Your task to perform on an android device: check android version Image 0: 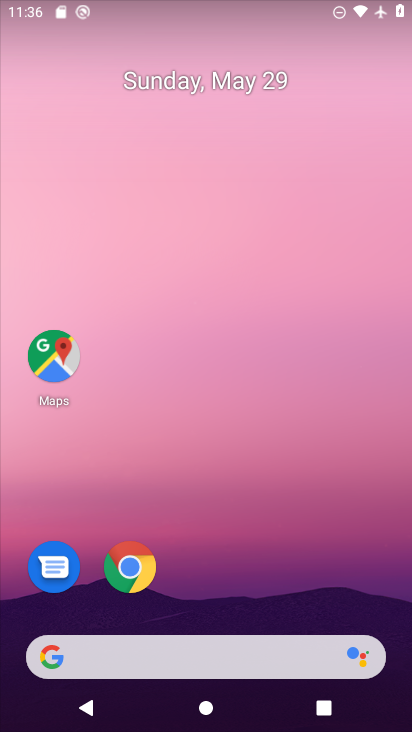
Step 0: drag from (382, 618) to (320, 42)
Your task to perform on an android device: check android version Image 1: 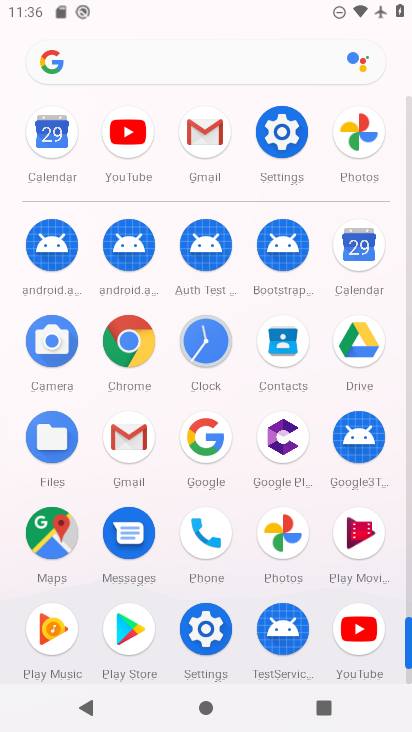
Step 1: click (203, 629)
Your task to perform on an android device: check android version Image 2: 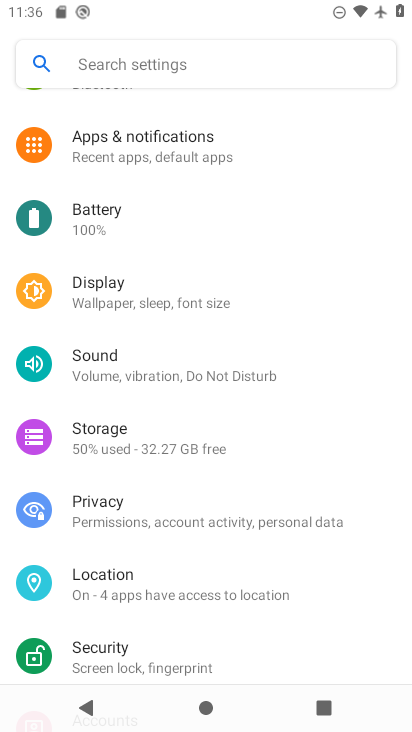
Step 2: drag from (277, 657) to (264, 134)
Your task to perform on an android device: check android version Image 3: 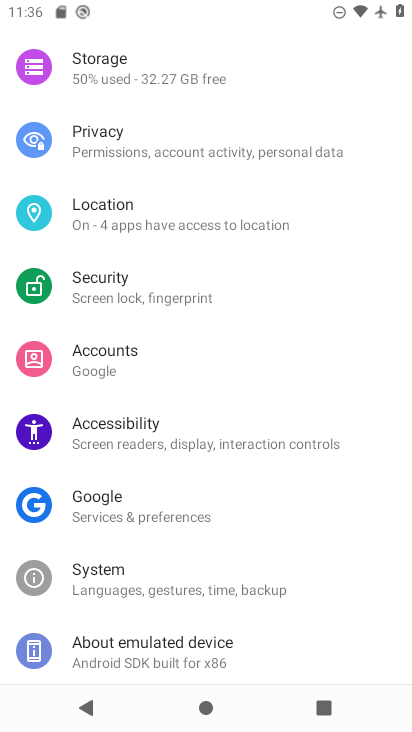
Step 3: click (131, 646)
Your task to perform on an android device: check android version Image 4: 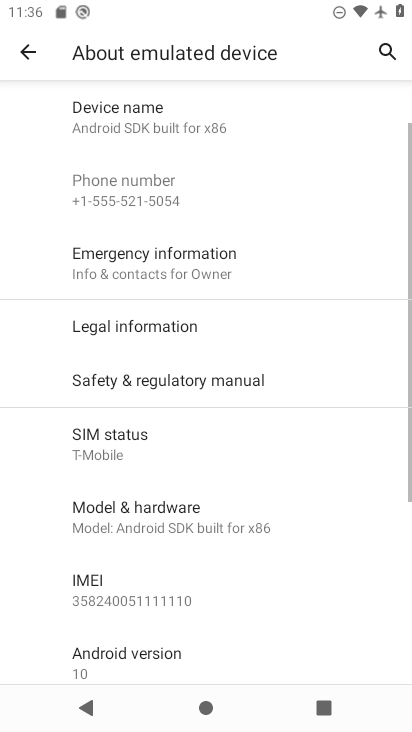
Step 4: drag from (397, 189) to (310, 153)
Your task to perform on an android device: check android version Image 5: 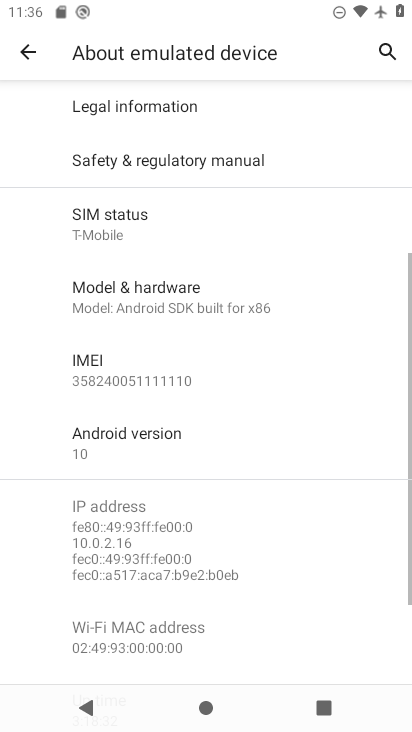
Step 5: click (96, 433)
Your task to perform on an android device: check android version Image 6: 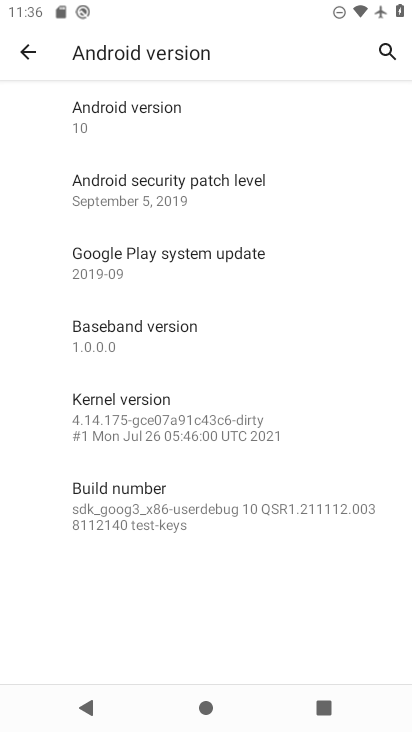
Step 6: task complete